Your task to perform on an android device: Open Youtube and go to "Your channel" Image 0: 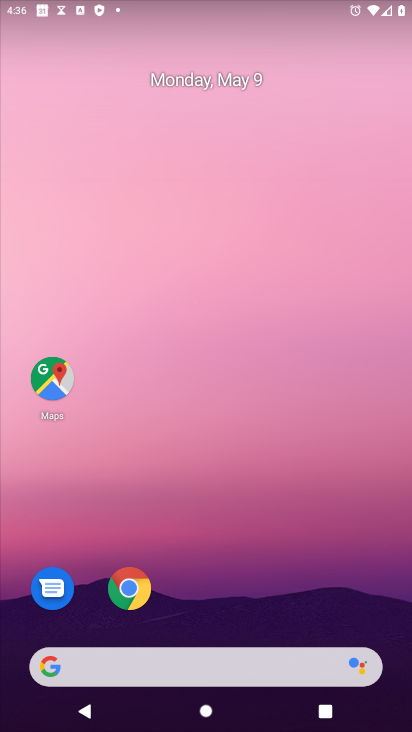
Step 0: press home button
Your task to perform on an android device: Open Youtube and go to "Your channel" Image 1: 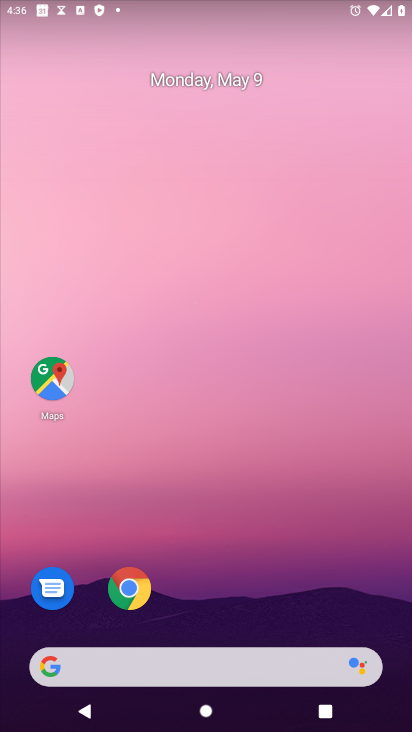
Step 1: drag from (263, 599) to (229, 87)
Your task to perform on an android device: Open Youtube and go to "Your channel" Image 2: 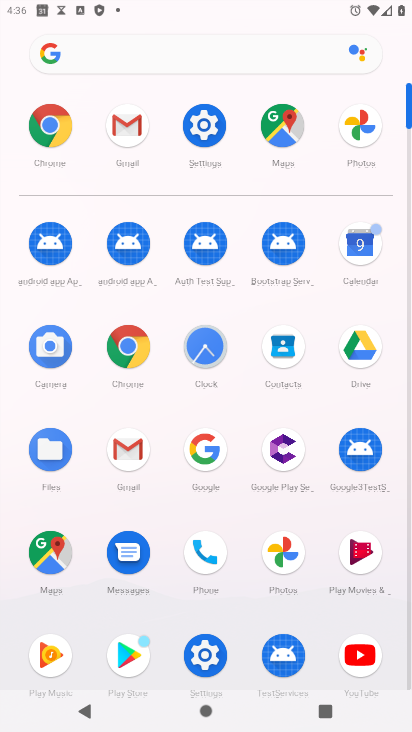
Step 2: click (359, 645)
Your task to perform on an android device: Open Youtube and go to "Your channel" Image 3: 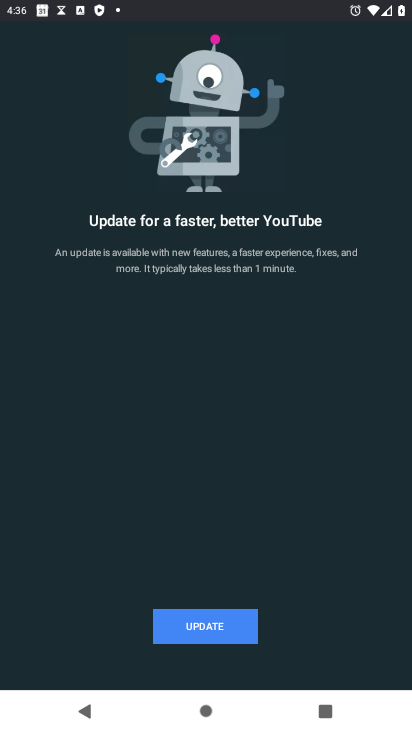
Step 3: click (228, 614)
Your task to perform on an android device: Open Youtube and go to "Your channel" Image 4: 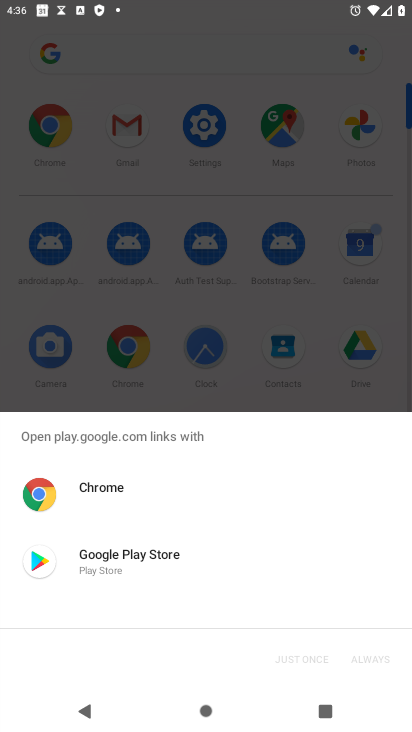
Step 4: click (106, 562)
Your task to perform on an android device: Open Youtube and go to "Your channel" Image 5: 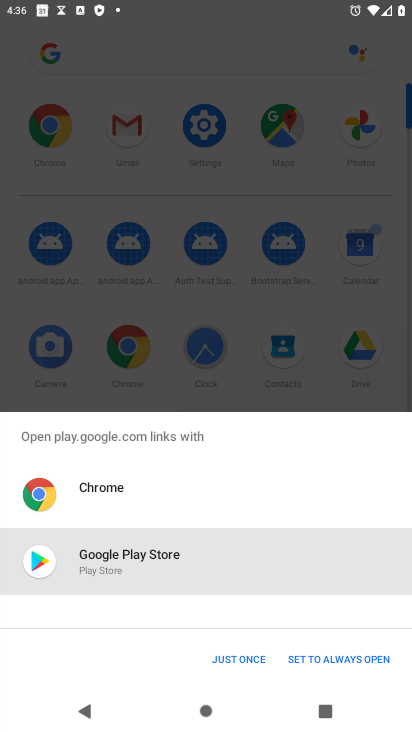
Step 5: click (229, 656)
Your task to perform on an android device: Open Youtube and go to "Your channel" Image 6: 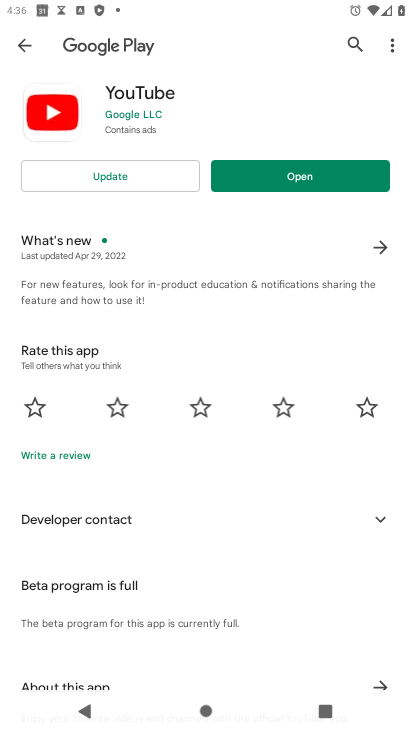
Step 6: click (126, 166)
Your task to perform on an android device: Open Youtube and go to "Your channel" Image 7: 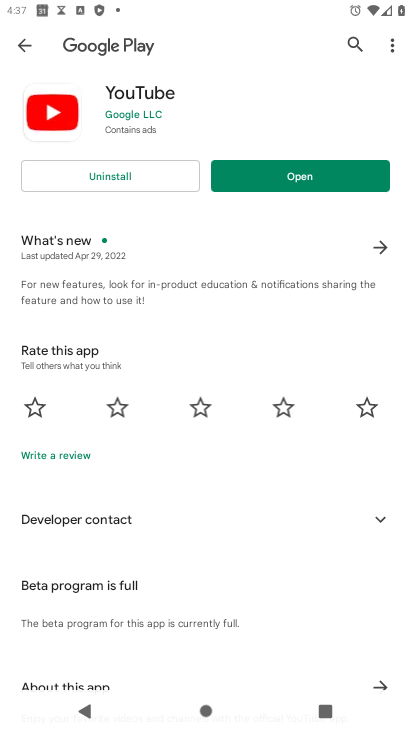
Step 7: click (290, 161)
Your task to perform on an android device: Open Youtube and go to "Your channel" Image 8: 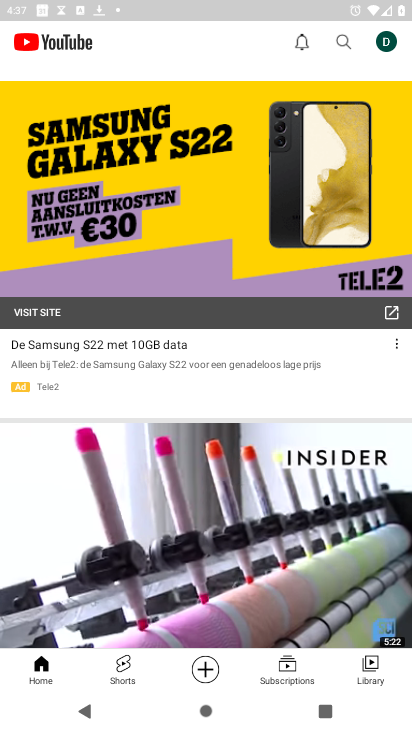
Step 8: click (385, 31)
Your task to perform on an android device: Open Youtube and go to "Your channel" Image 9: 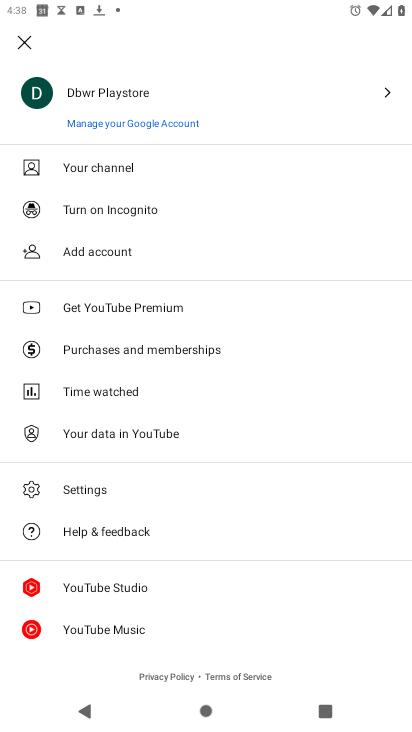
Step 9: click (125, 165)
Your task to perform on an android device: Open Youtube and go to "Your channel" Image 10: 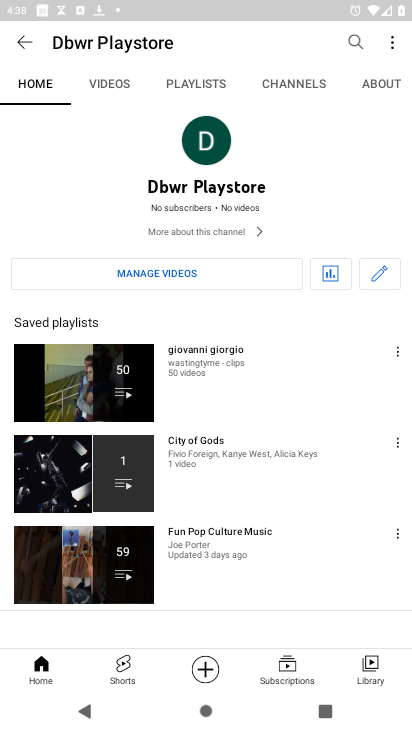
Step 10: task complete